Your task to perform on an android device: snooze an email in the gmail app Image 0: 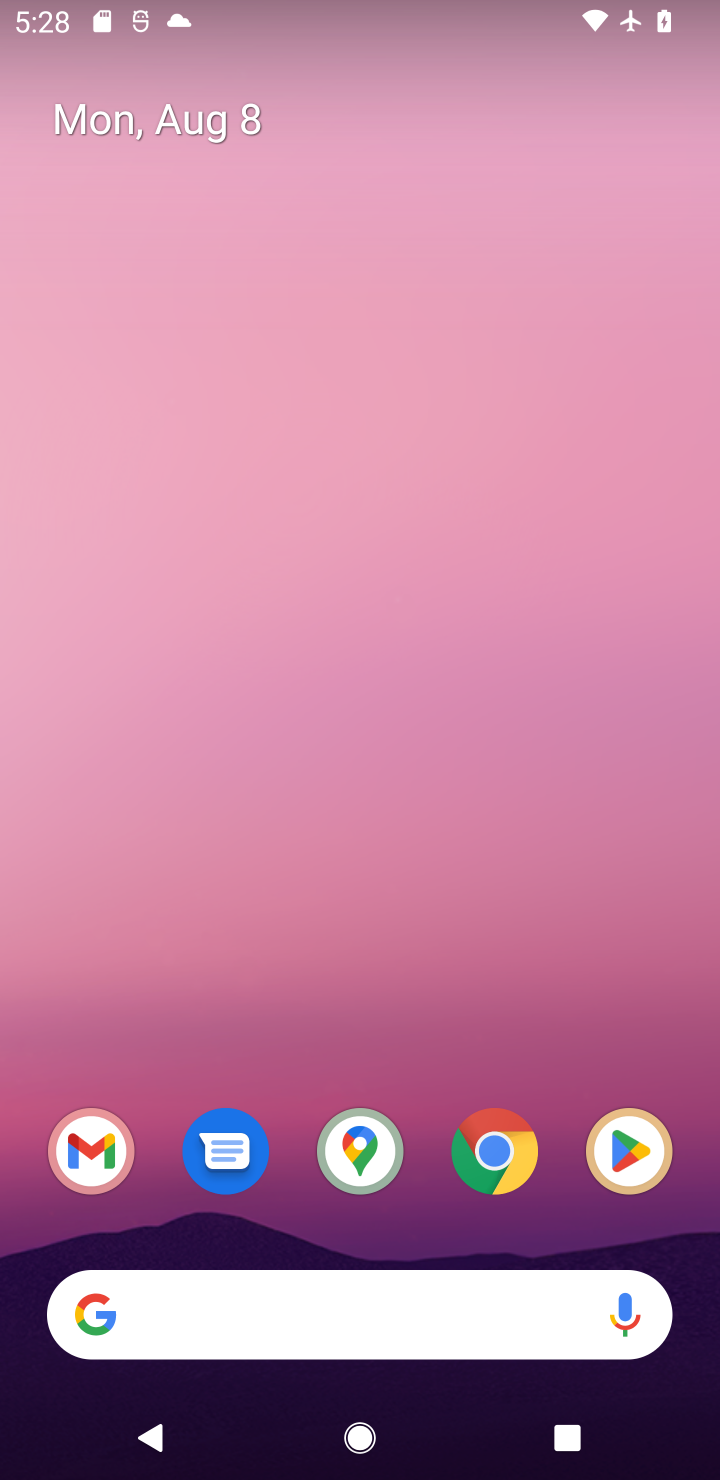
Step 0: click (115, 1163)
Your task to perform on an android device: snooze an email in the gmail app Image 1: 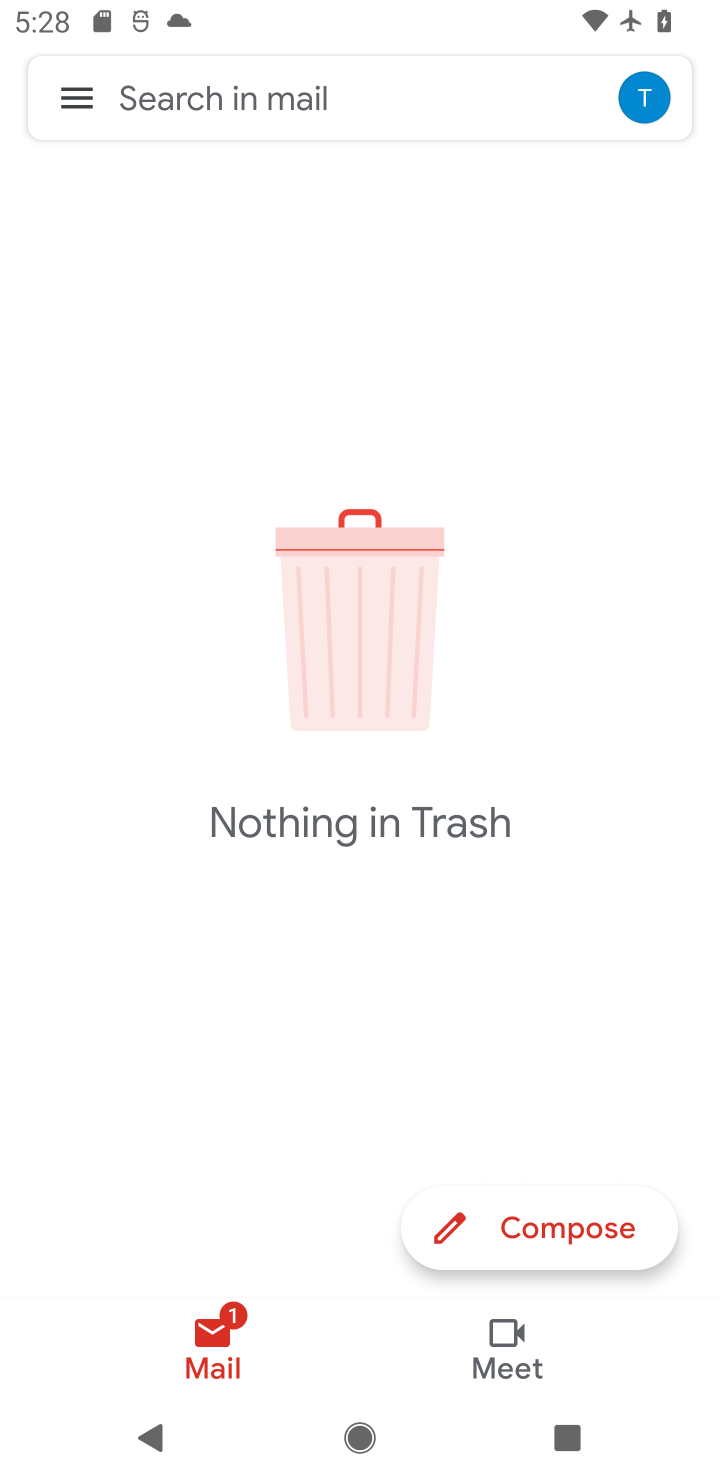
Step 1: click (61, 88)
Your task to perform on an android device: snooze an email in the gmail app Image 2: 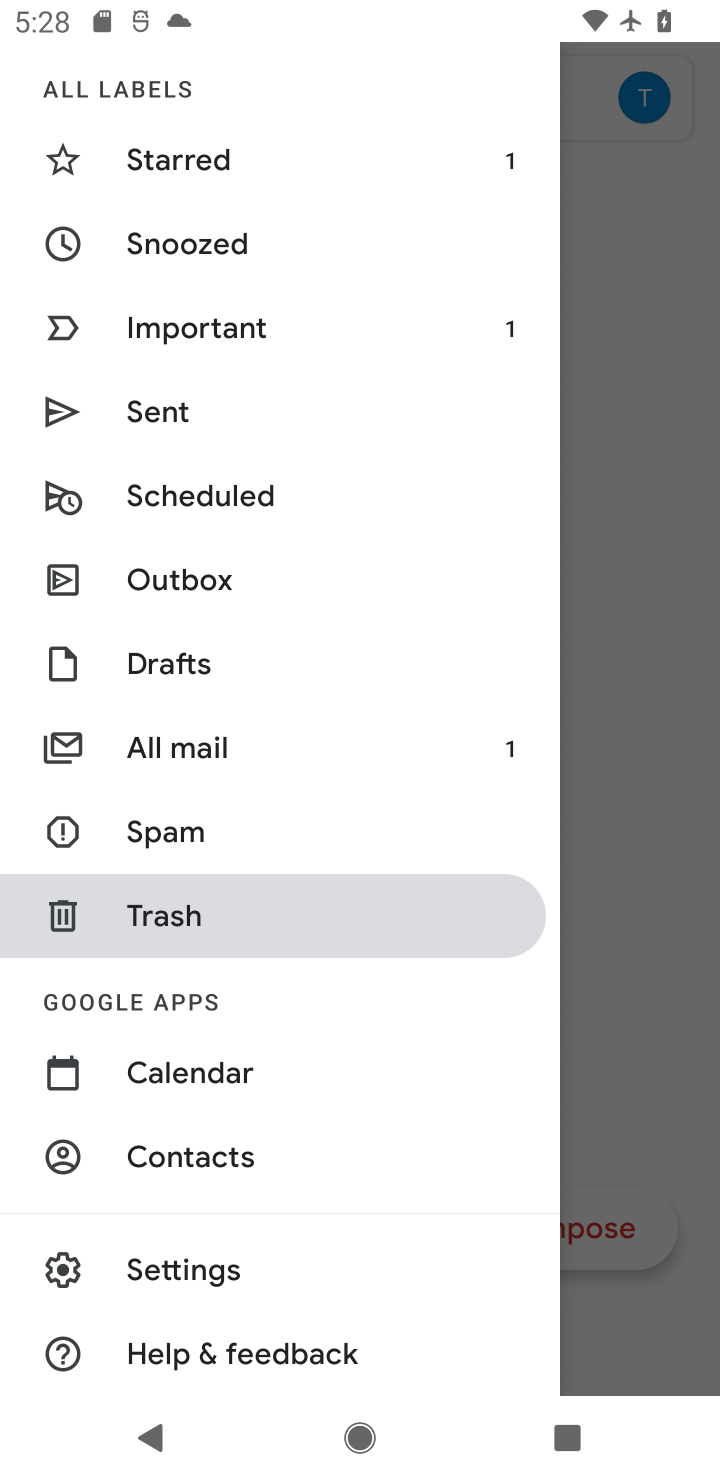
Step 2: click (208, 736)
Your task to perform on an android device: snooze an email in the gmail app Image 3: 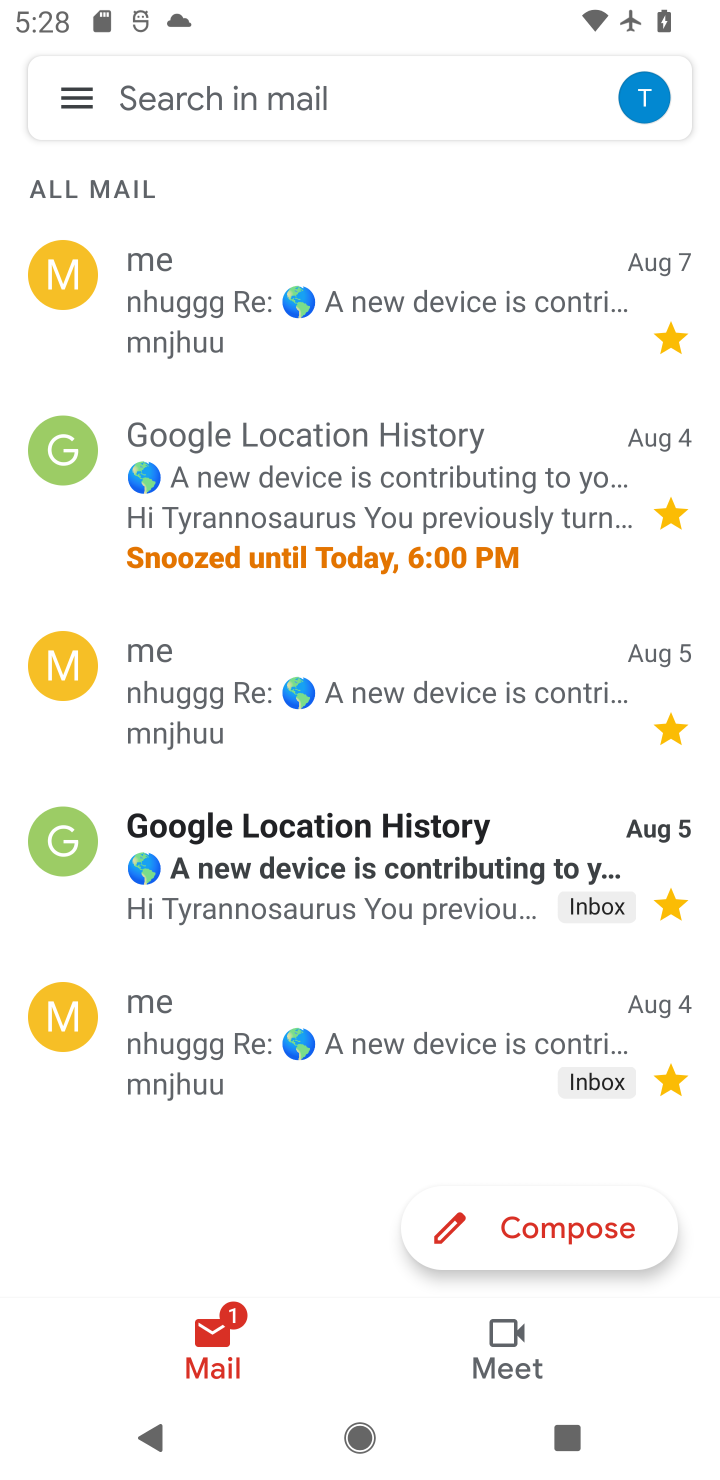
Step 3: click (314, 860)
Your task to perform on an android device: snooze an email in the gmail app Image 4: 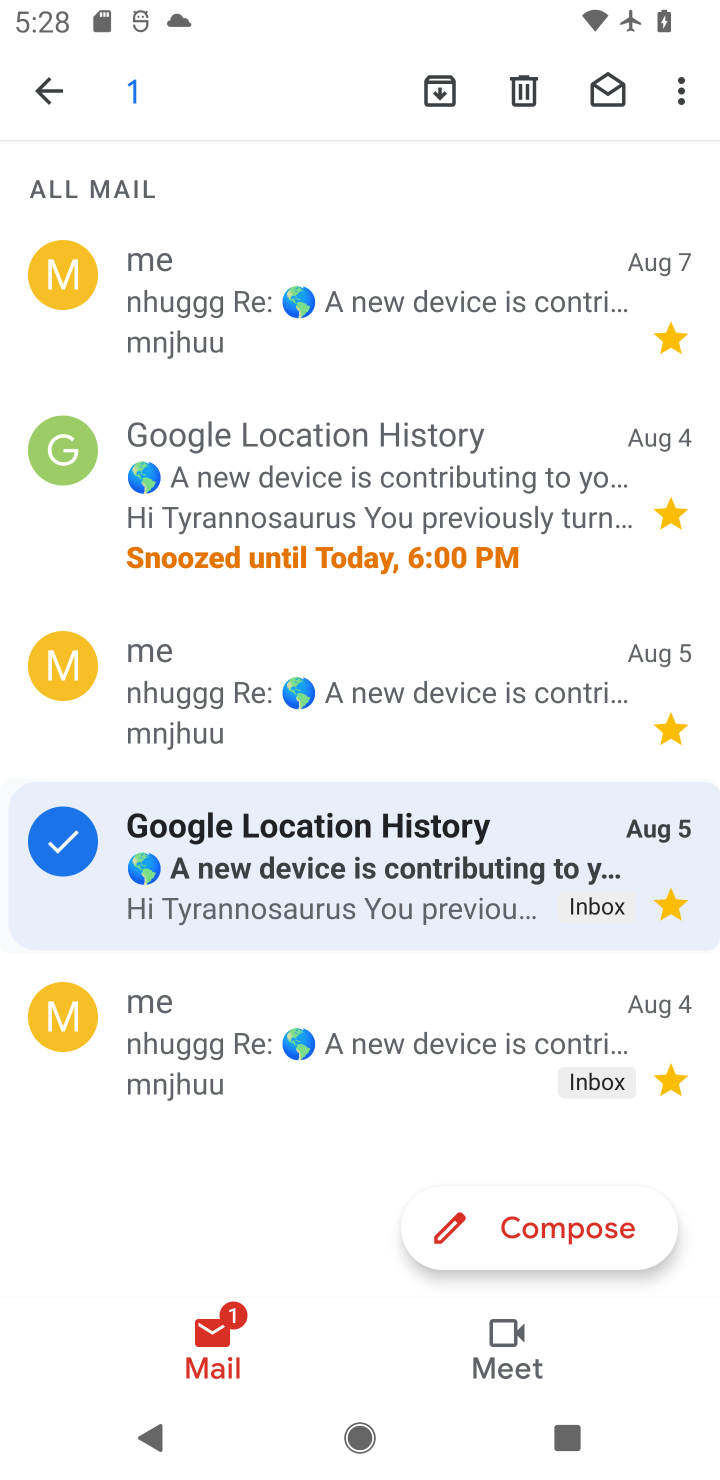
Step 4: click (678, 94)
Your task to perform on an android device: snooze an email in the gmail app Image 5: 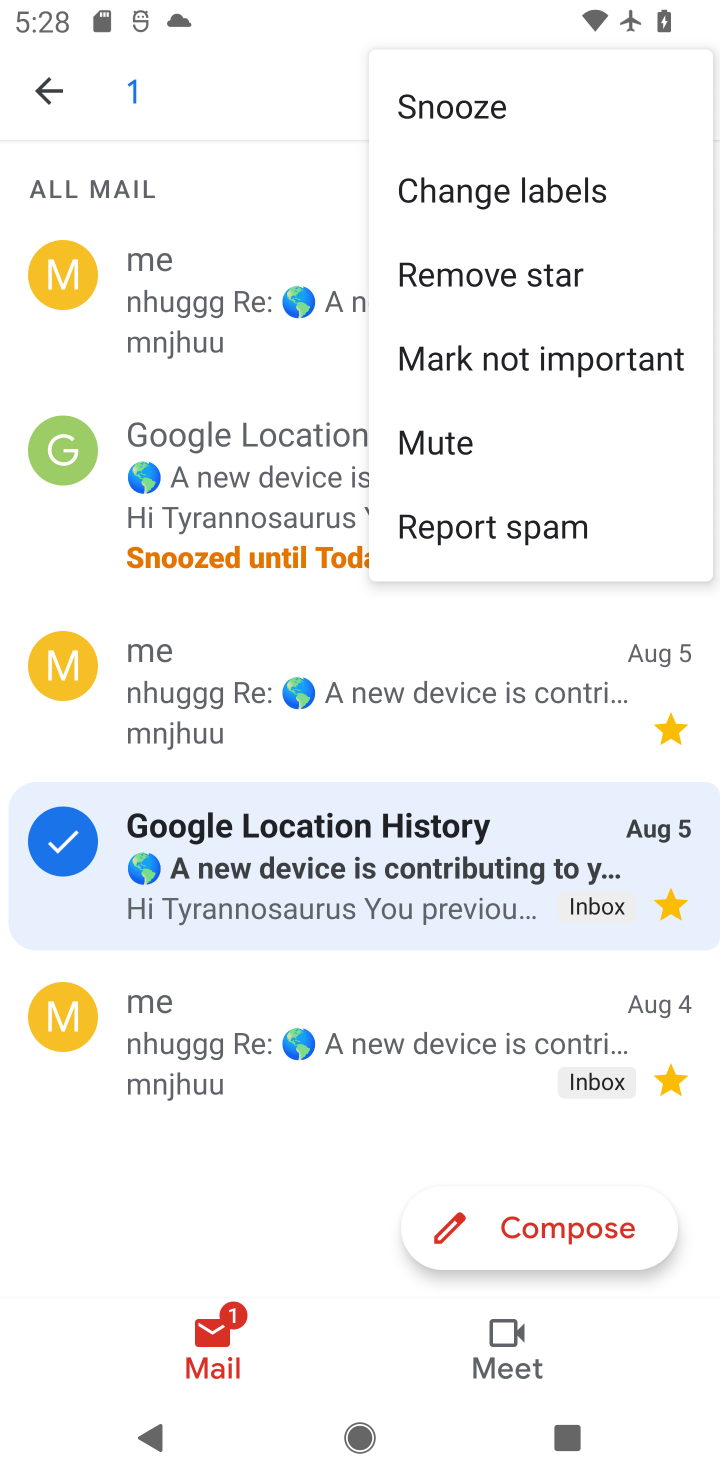
Step 5: click (582, 119)
Your task to perform on an android device: snooze an email in the gmail app Image 6: 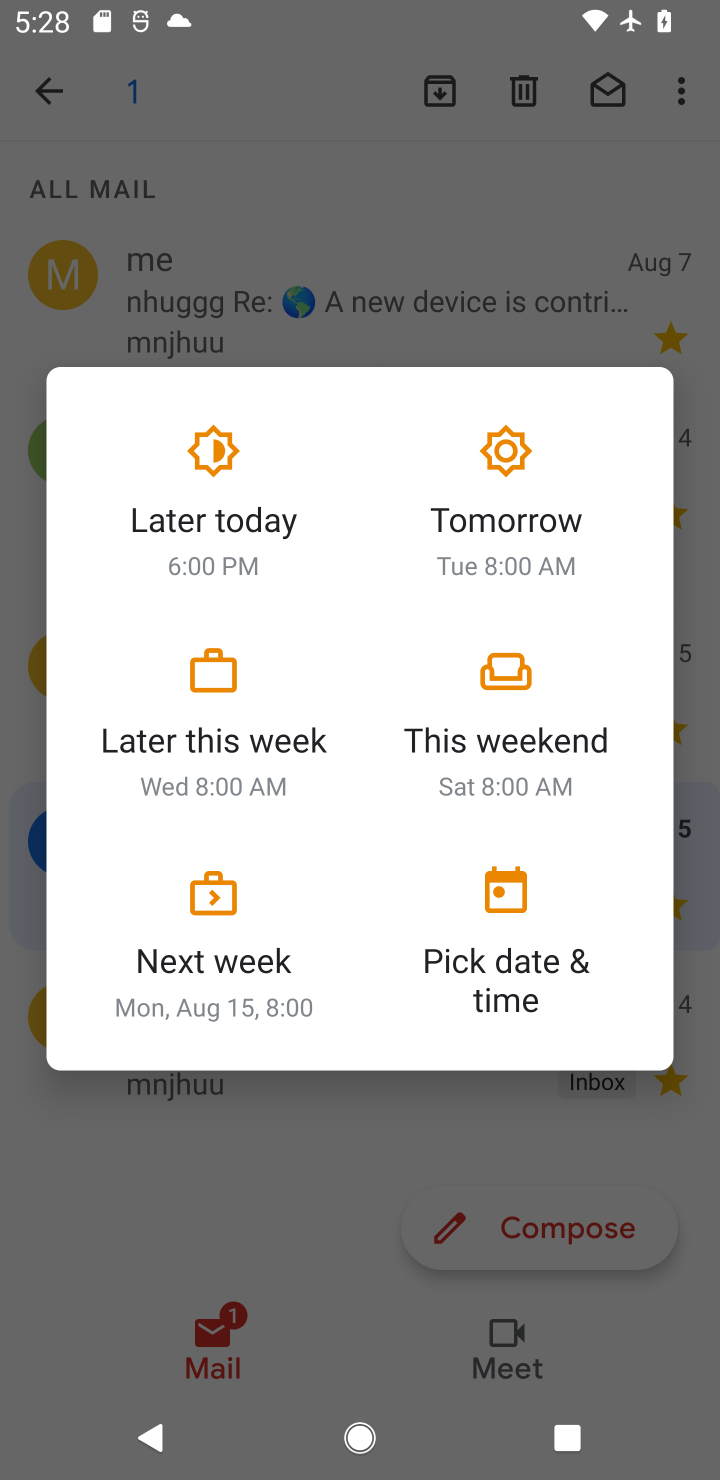
Step 6: click (219, 503)
Your task to perform on an android device: snooze an email in the gmail app Image 7: 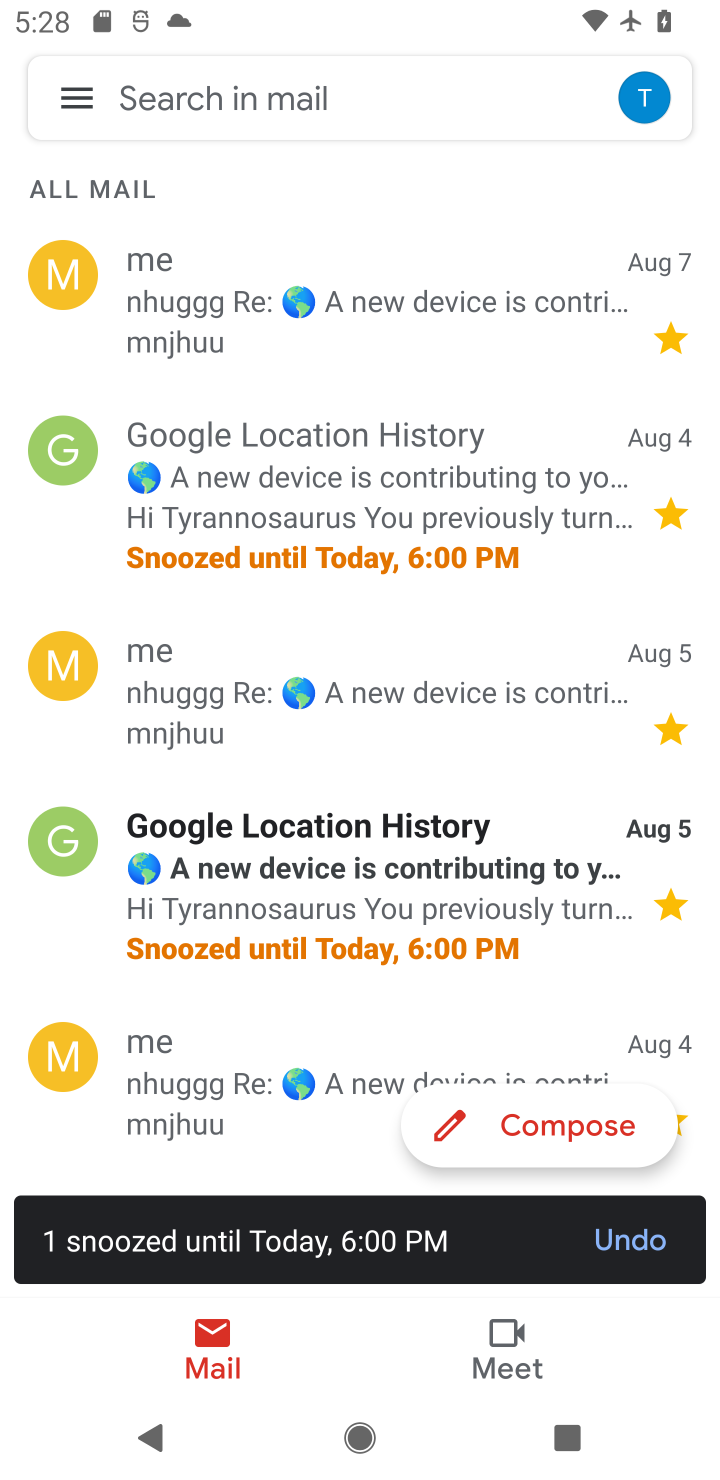
Step 7: task complete